Your task to perform on an android device: Go to Google maps Image 0: 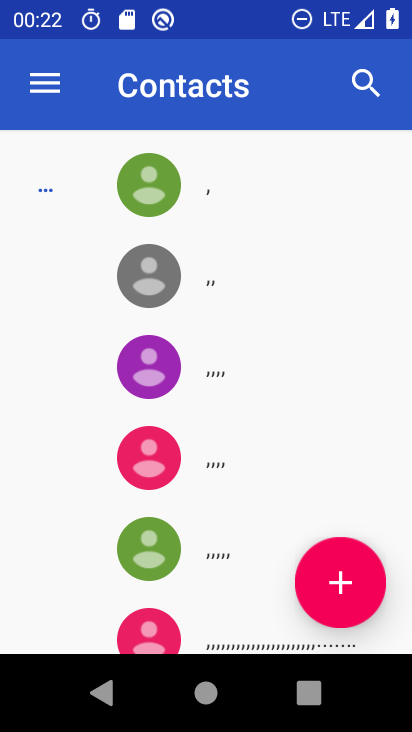
Step 0: press home button
Your task to perform on an android device: Go to Google maps Image 1: 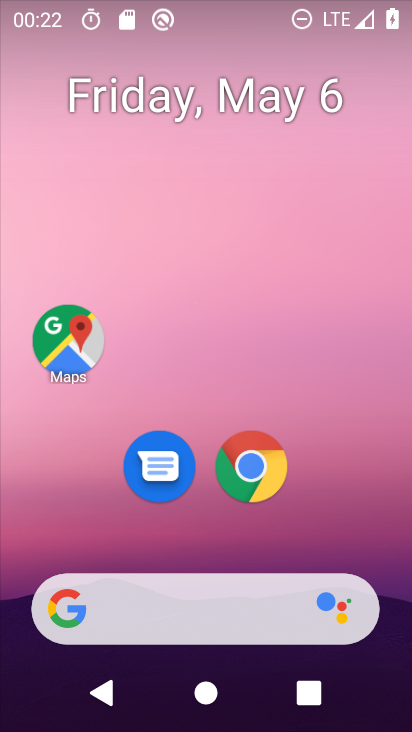
Step 1: click (74, 338)
Your task to perform on an android device: Go to Google maps Image 2: 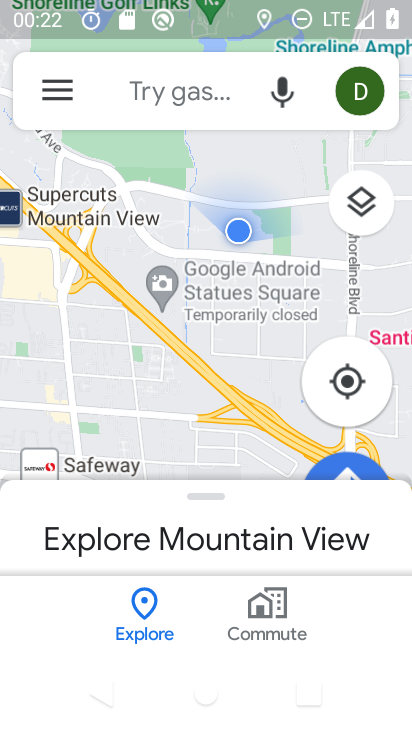
Step 2: task complete